Your task to perform on an android device: Search for pizza restaurants on Maps Image 0: 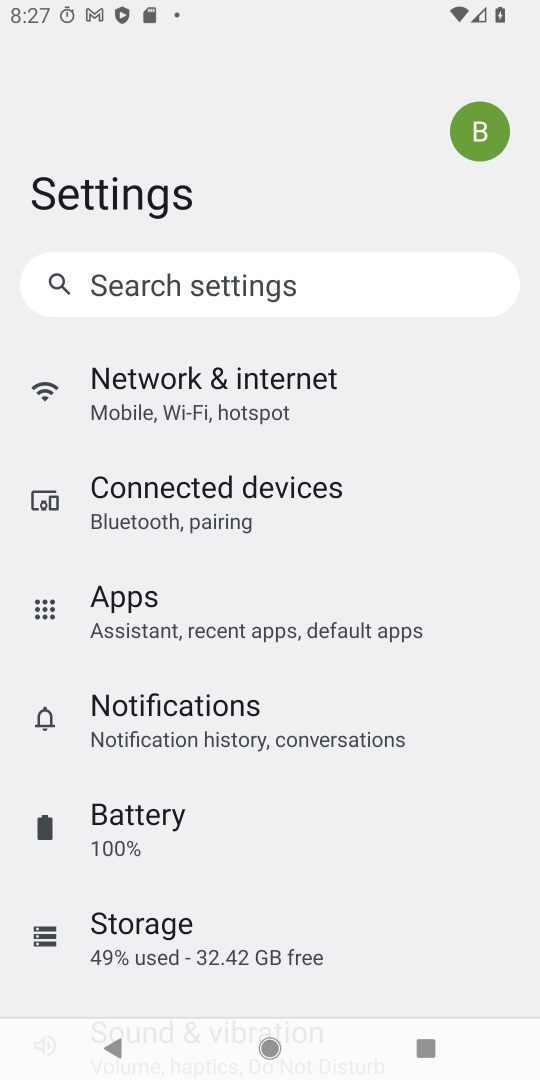
Step 0: press home button
Your task to perform on an android device: Search for pizza restaurants on Maps Image 1: 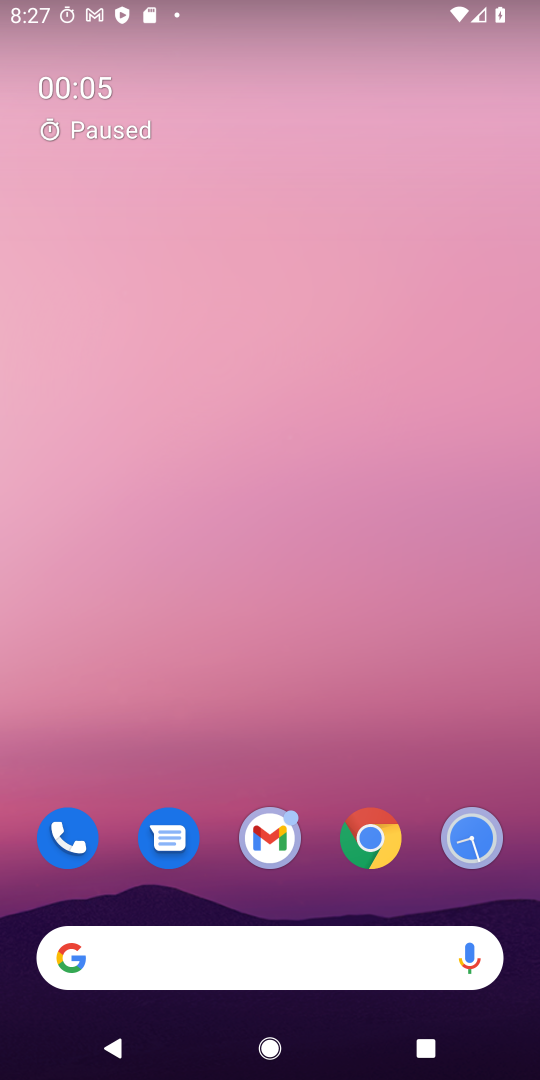
Step 1: drag from (240, 865) to (340, 13)
Your task to perform on an android device: Search for pizza restaurants on Maps Image 2: 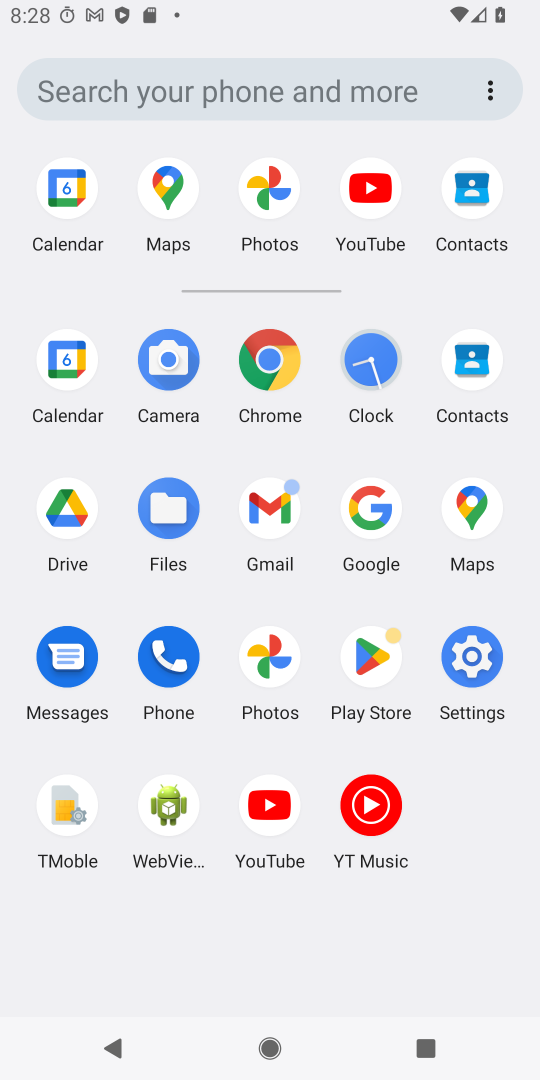
Step 2: click (469, 538)
Your task to perform on an android device: Search for pizza restaurants on Maps Image 3: 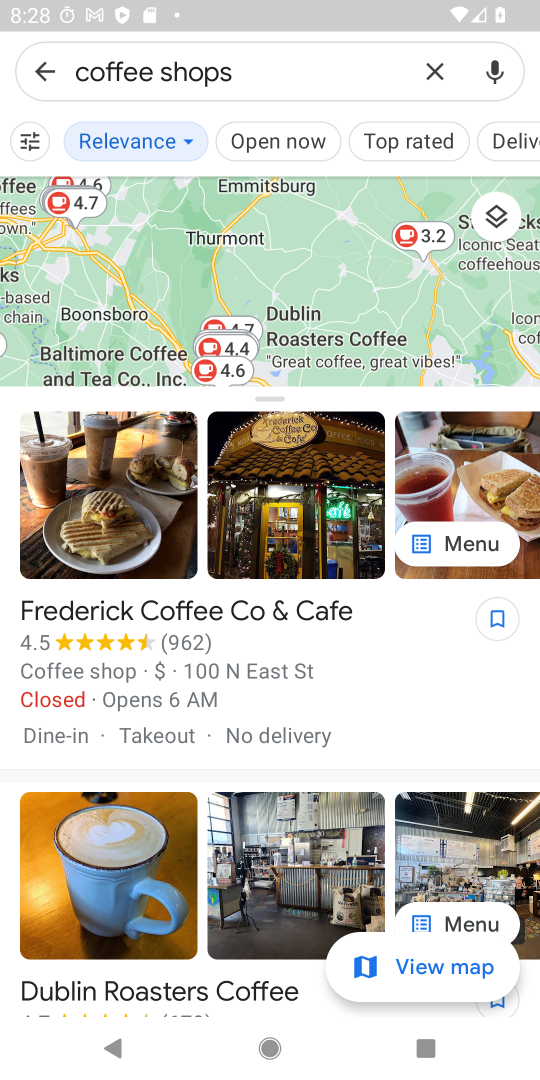
Step 3: click (449, 73)
Your task to perform on an android device: Search for pizza restaurants on Maps Image 4: 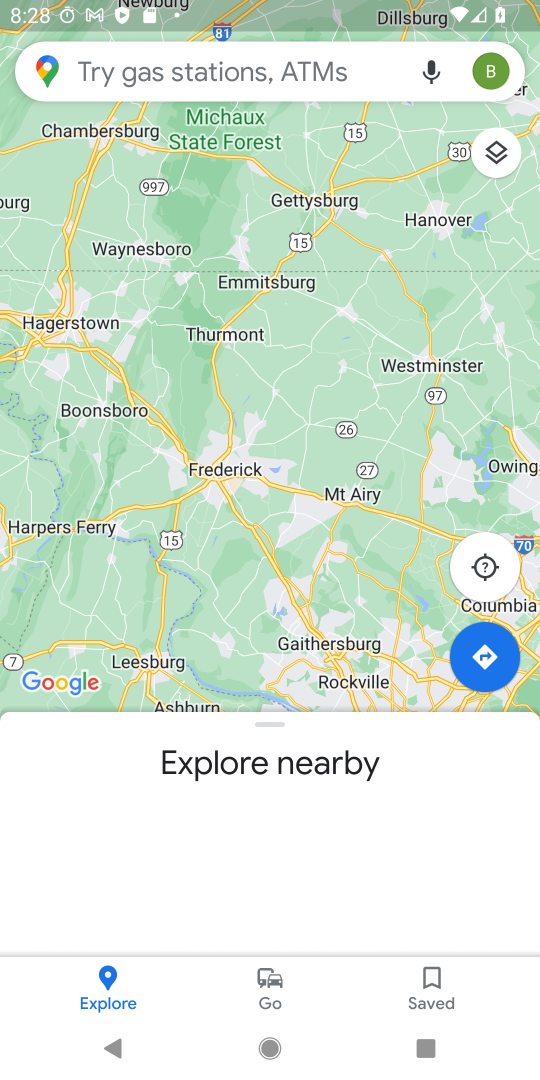
Step 4: click (325, 68)
Your task to perform on an android device: Search for pizza restaurants on Maps Image 5: 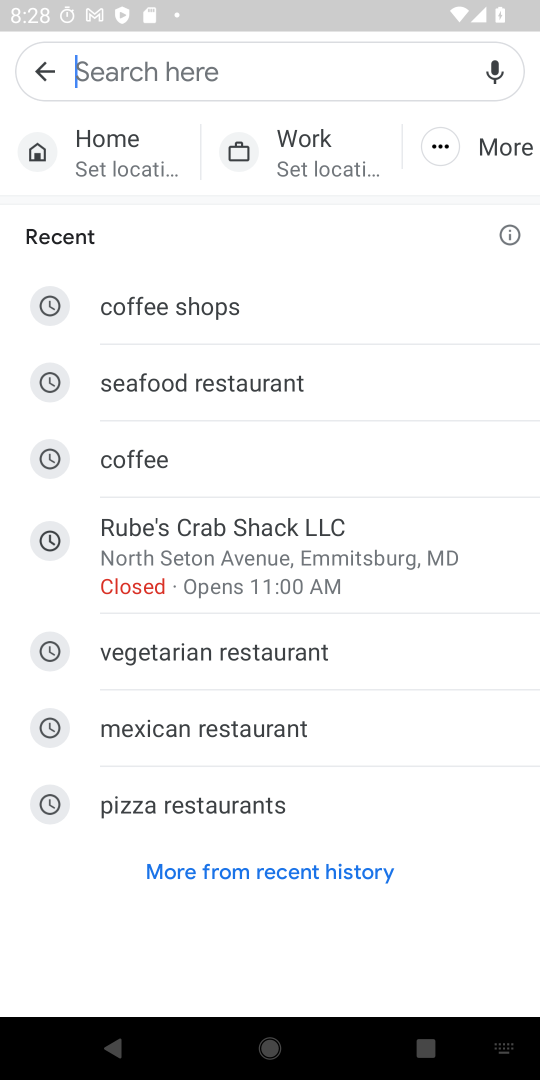
Step 5: type "pizza restaurants"
Your task to perform on an android device: Search for pizza restaurants on Maps Image 6: 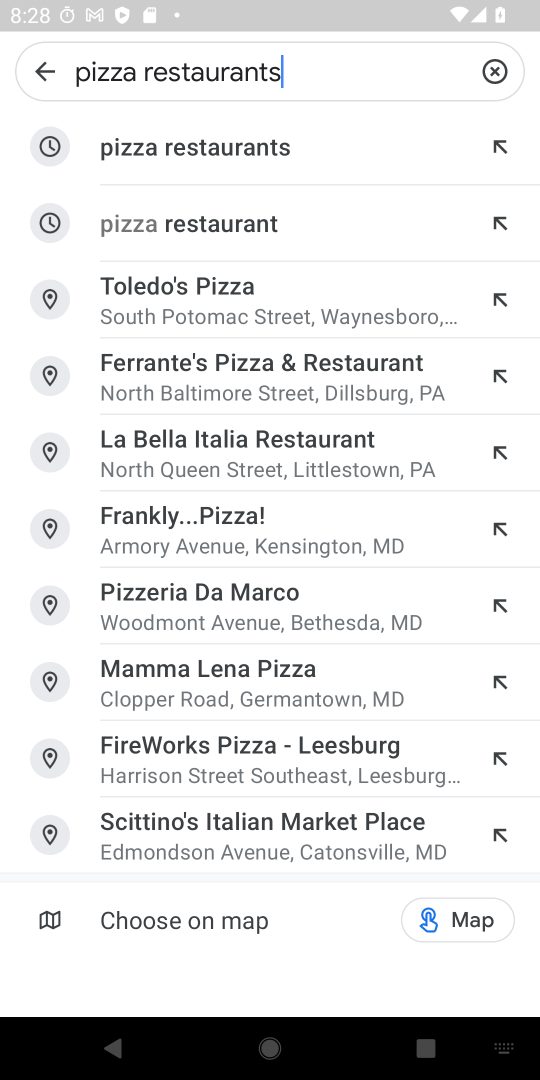
Step 6: click (134, 143)
Your task to perform on an android device: Search for pizza restaurants on Maps Image 7: 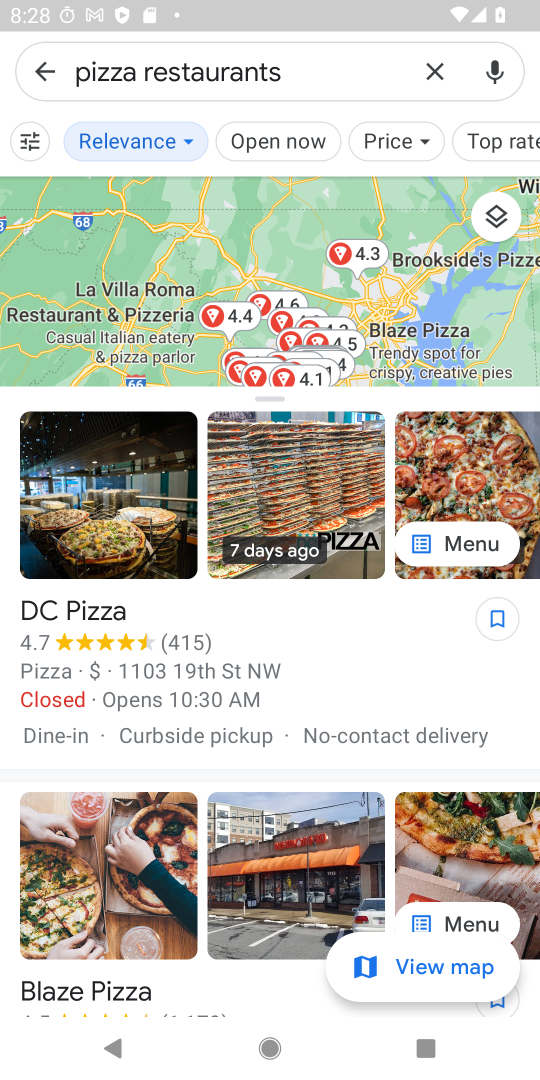
Step 7: task complete